Your task to perform on an android device: open the mobile data screen to see how much data has been used Image 0: 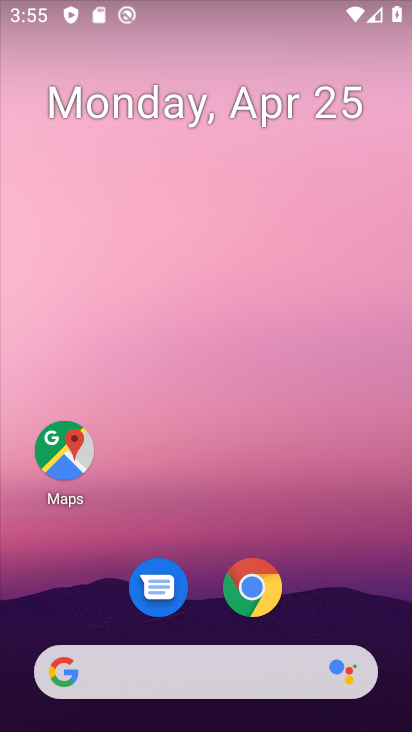
Step 0: drag from (211, 602) to (187, 208)
Your task to perform on an android device: open the mobile data screen to see how much data has been used Image 1: 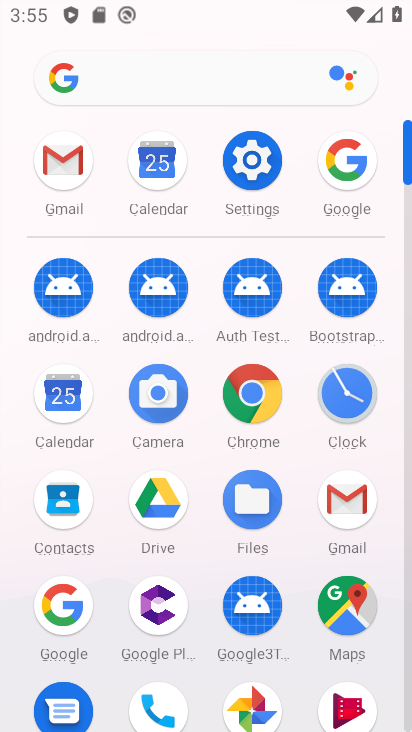
Step 1: click (254, 165)
Your task to perform on an android device: open the mobile data screen to see how much data has been used Image 2: 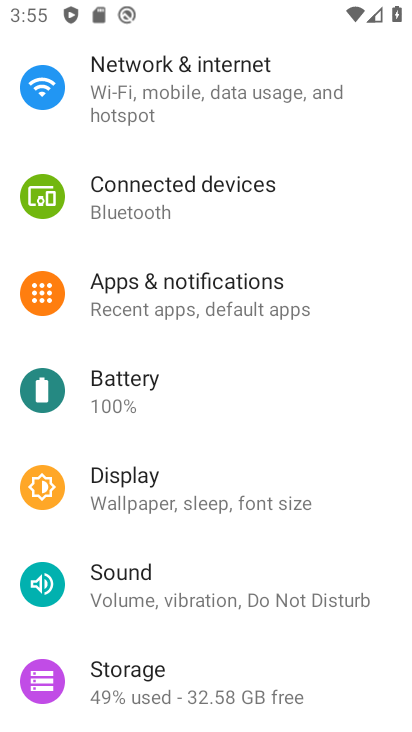
Step 2: click (198, 86)
Your task to perform on an android device: open the mobile data screen to see how much data has been used Image 3: 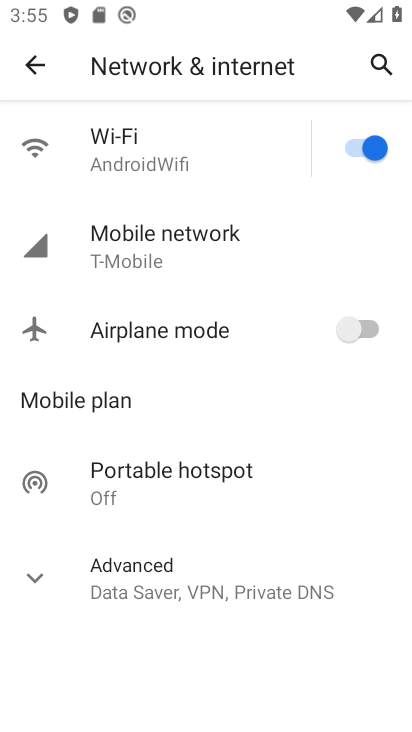
Step 3: click (160, 253)
Your task to perform on an android device: open the mobile data screen to see how much data has been used Image 4: 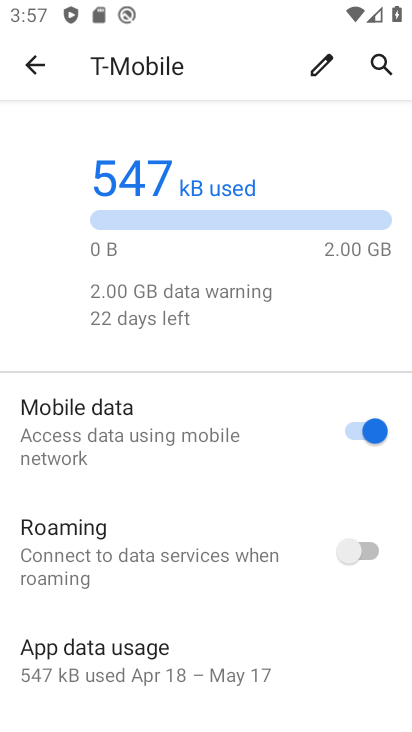
Step 4: task complete